Your task to perform on an android device: Go to Google Image 0: 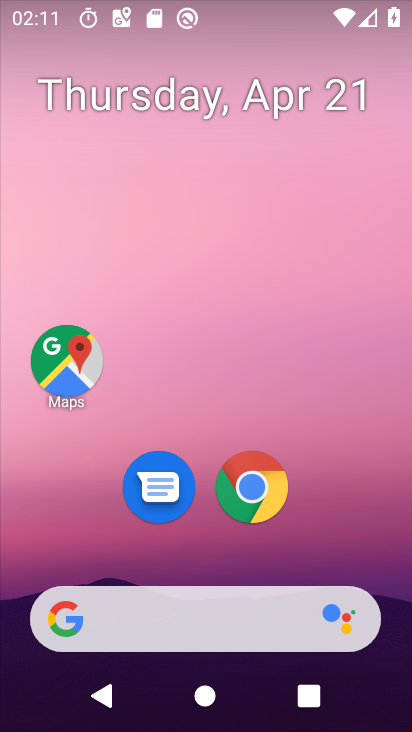
Step 0: drag from (230, 520) to (284, 241)
Your task to perform on an android device: Go to Google Image 1: 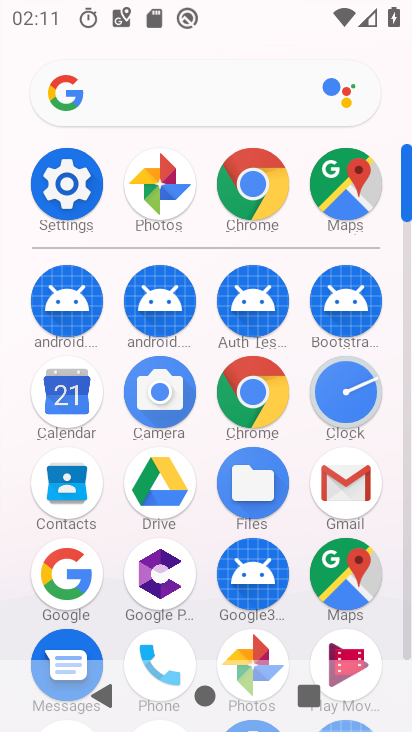
Step 1: click (50, 574)
Your task to perform on an android device: Go to Google Image 2: 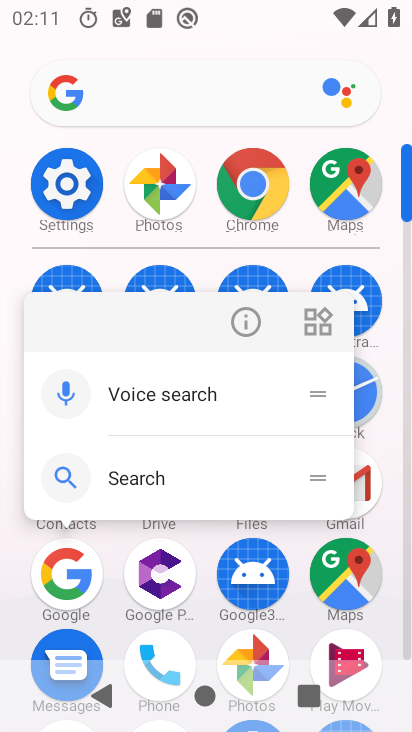
Step 2: click (247, 313)
Your task to perform on an android device: Go to Google Image 3: 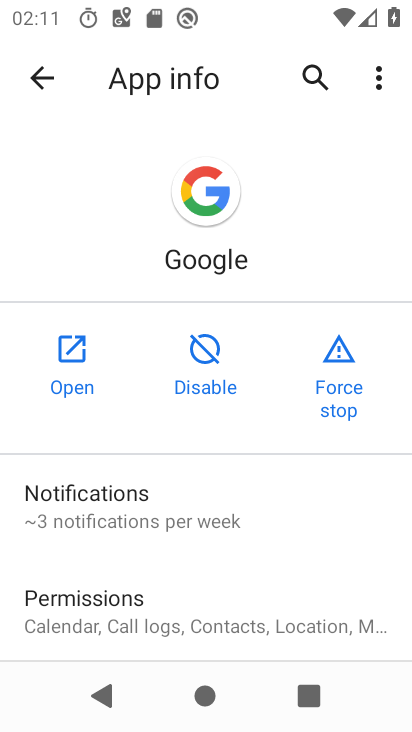
Step 3: click (82, 341)
Your task to perform on an android device: Go to Google Image 4: 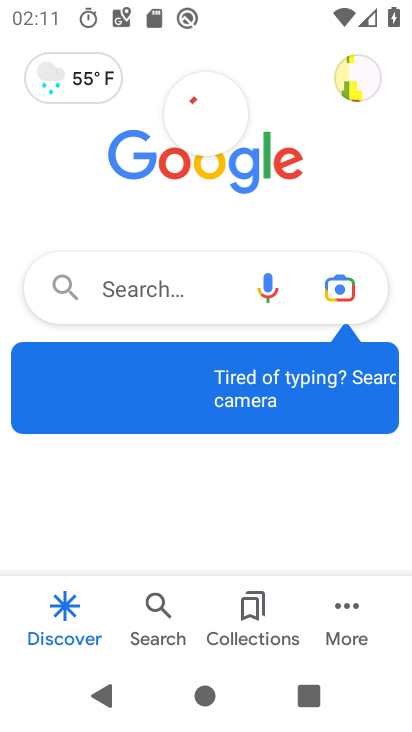
Step 4: task complete